Your task to perform on an android device: open app "AliExpress" (install if not already installed) Image 0: 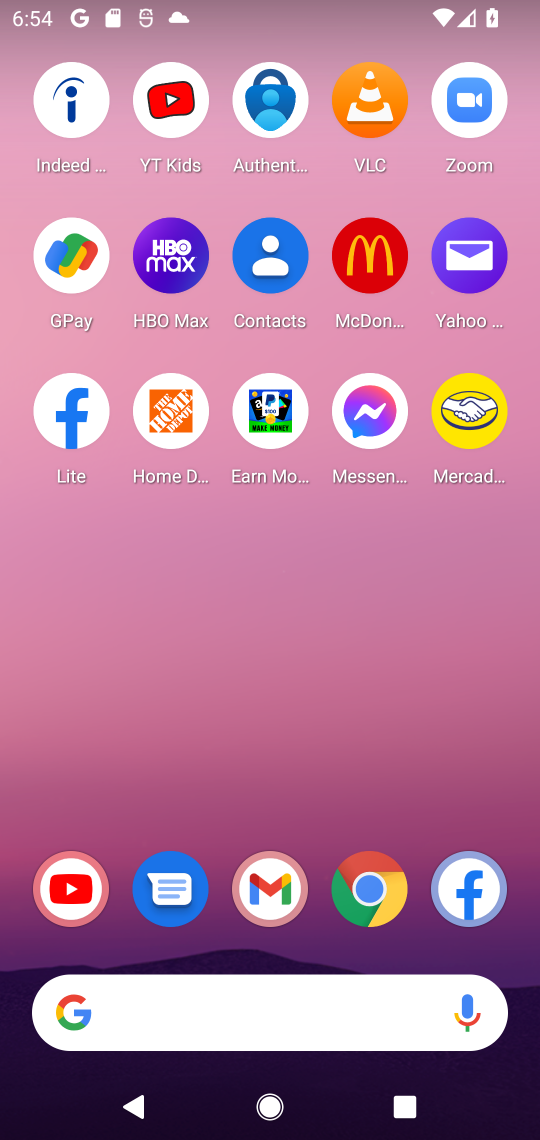
Step 0: press home button
Your task to perform on an android device: open app "AliExpress" (install if not already installed) Image 1: 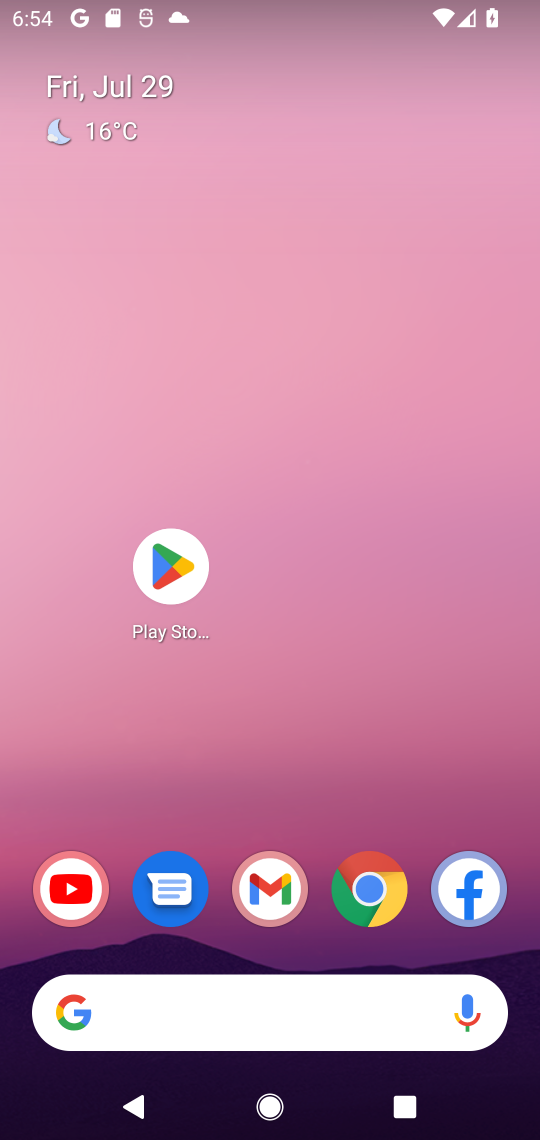
Step 1: click (176, 566)
Your task to perform on an android device: open app "AliExpress" (install if not already installed) Image 2: 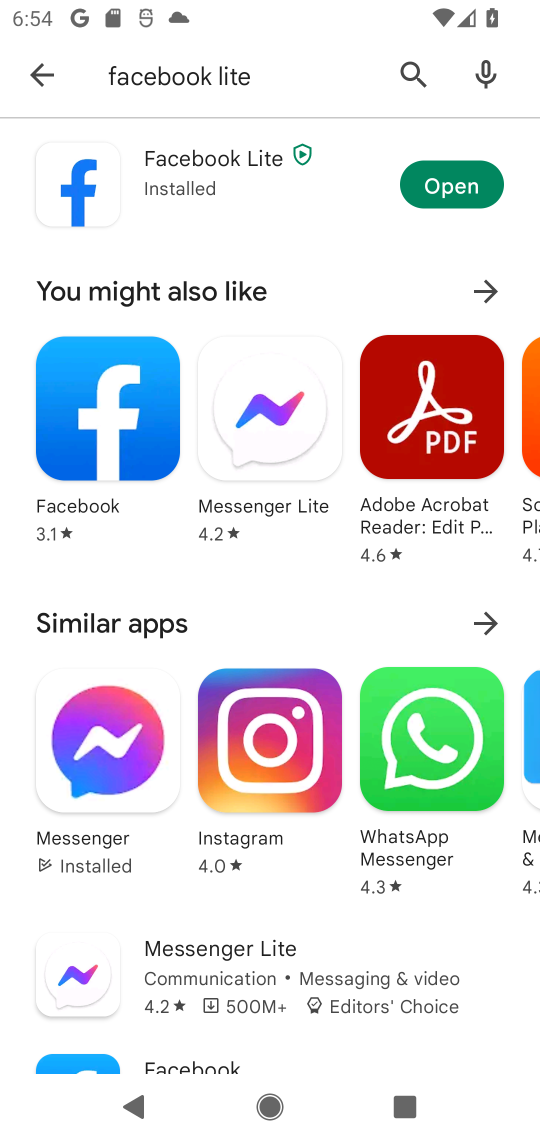
Step 2: click (408, 64)
Your task to perform on an android device: open app "AliExpress" (install if not already installed) Image 3: 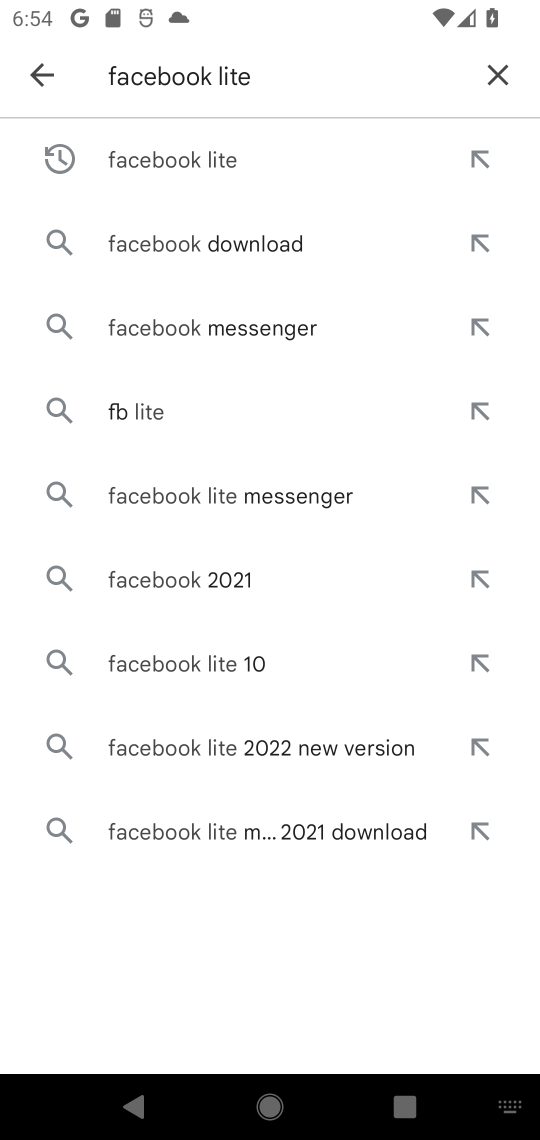
Step 3: click (494, 61)
Your task to perform on an android device: open app "AliExpress" (install if not already installed) Image 4: 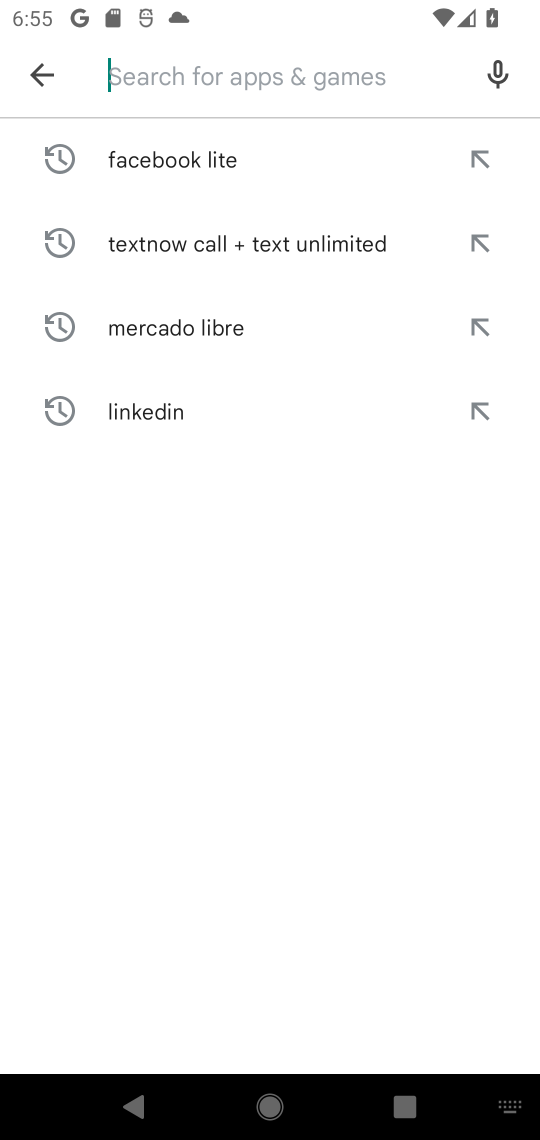
Step 4: type "AliExpress"
Your task to perform on an android device: open app "AliExpress" (install if not already installed) Image 5: 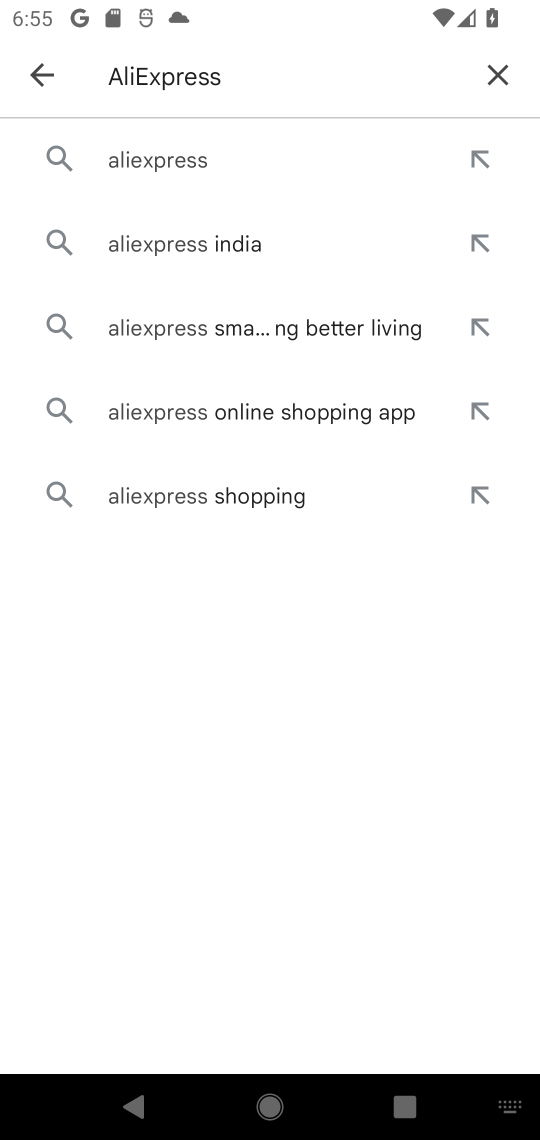
Step 5: click (185, 150)
Your task to perform on an android device: open app "AliExpress" (install if not already installed) Image 6: 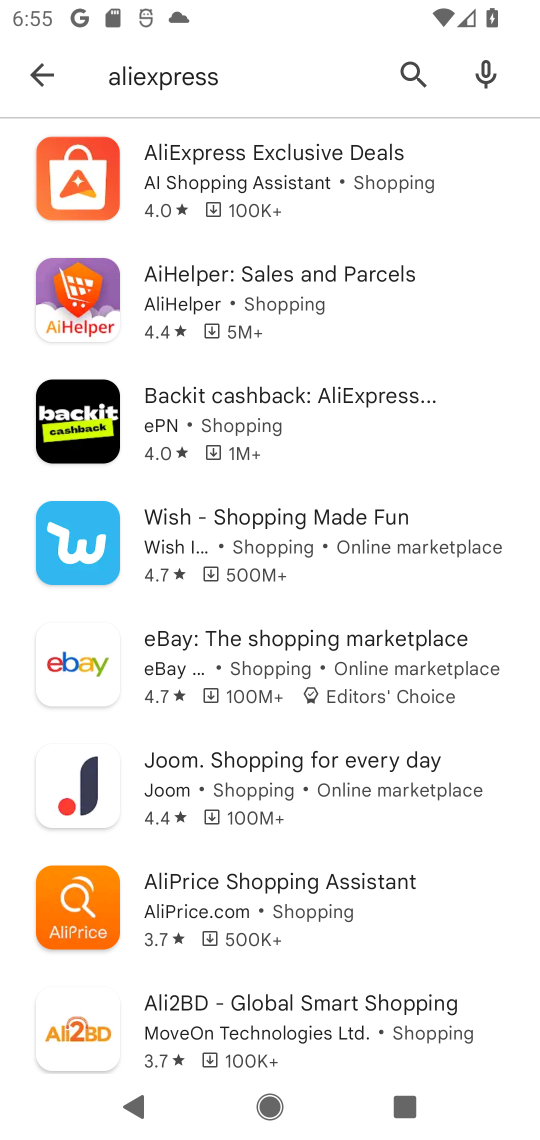
Step 6: click (191, 160)
Your task to perform on an android device: open app "AliExpress" (install if not already installed) Image 7: 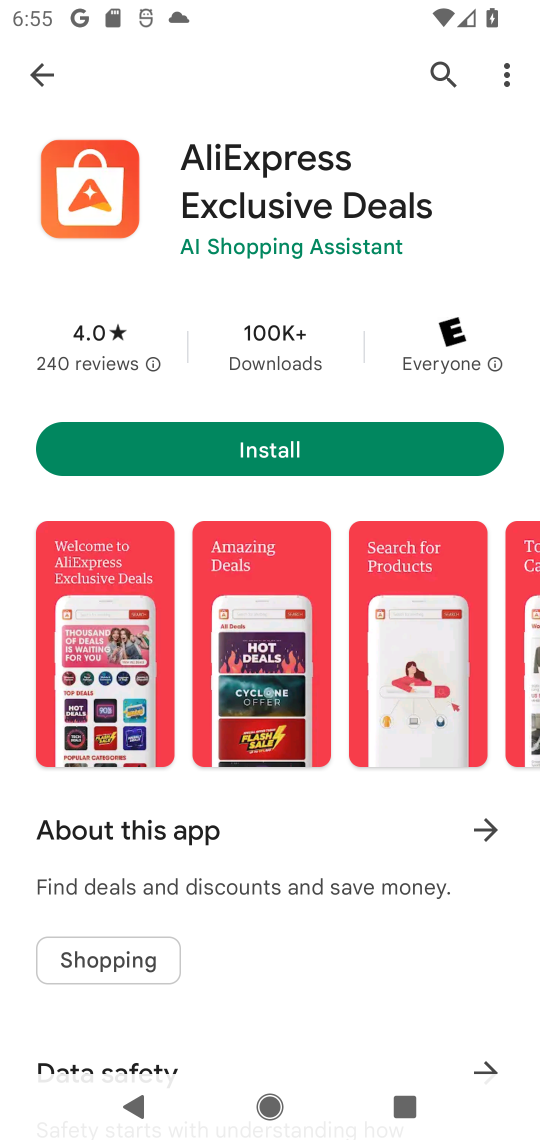
Step 7: click (268, 451)
Your task to perform on an android device: open app "AliExpress" (install if not already installed) Image 8: 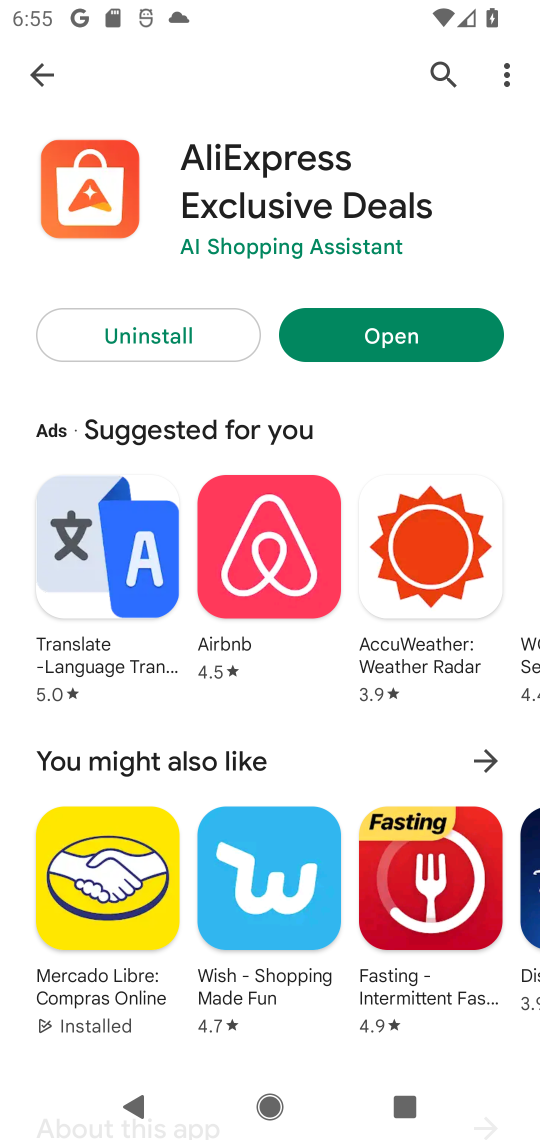
Step 8: click (398, 341)
Your task to perform on an android device: open app "AliExpress" (install if not already installed) Image 9: 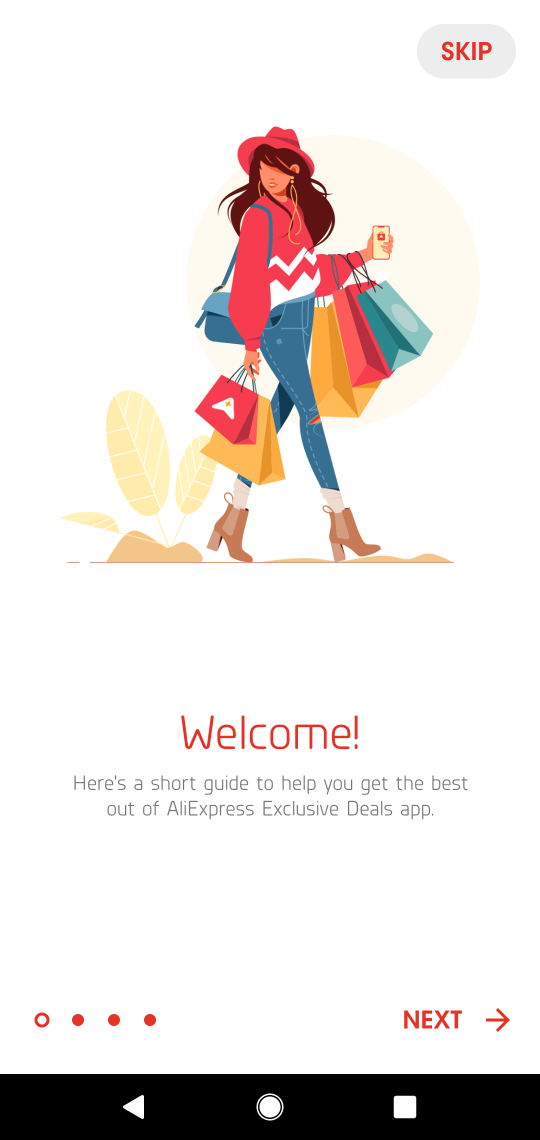
Step 9: task complete